Your task to perform on an android device: move an email to a new category in the gmail app Image 0: 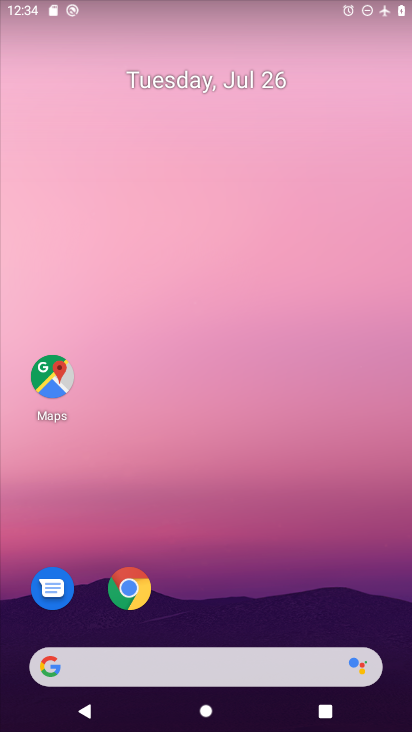
Step 0: drag from (241, 606) to (178, 136)
Your task to perform on an android device: move an email to a new category in the gmail app Image 1: 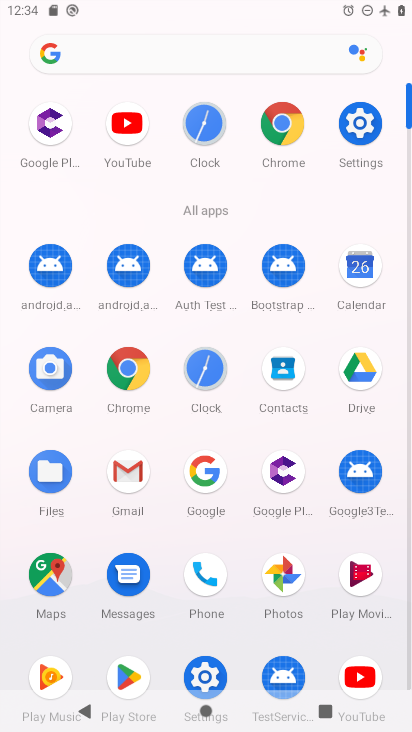
Step 1: click (129, 477)
Your task to perform on an android device: move an email to a new category in the gmail app Image 2: 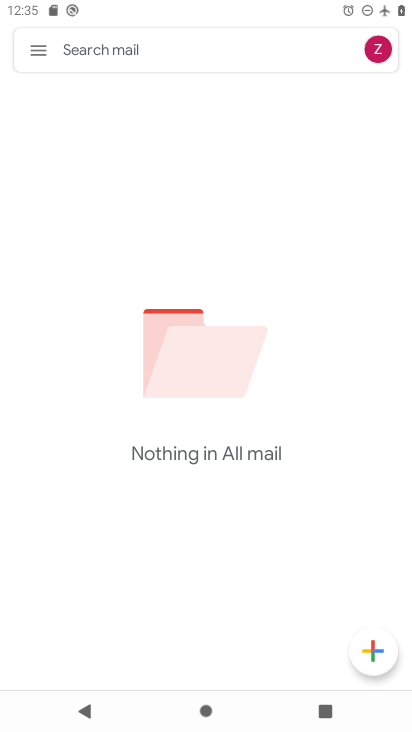
Step 2: task complete